Your task to perform on an android device: Open calendar and show me the second week of next month Image 0: 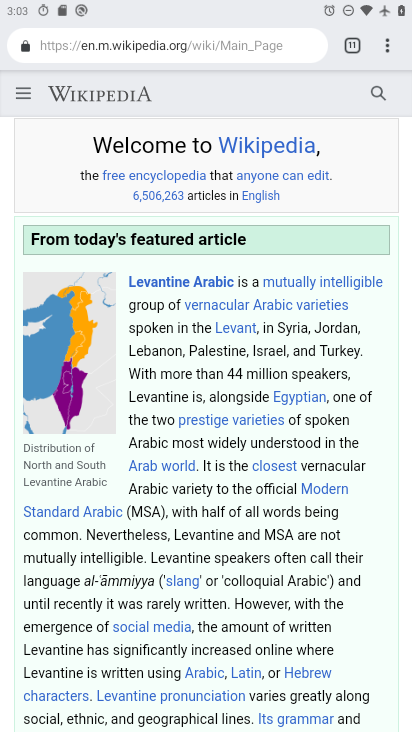
Step 0: drag from (219, 685) to (254, 622)
Your task to perform on an android device: Open calendar and show me the second week of next month Image 1: 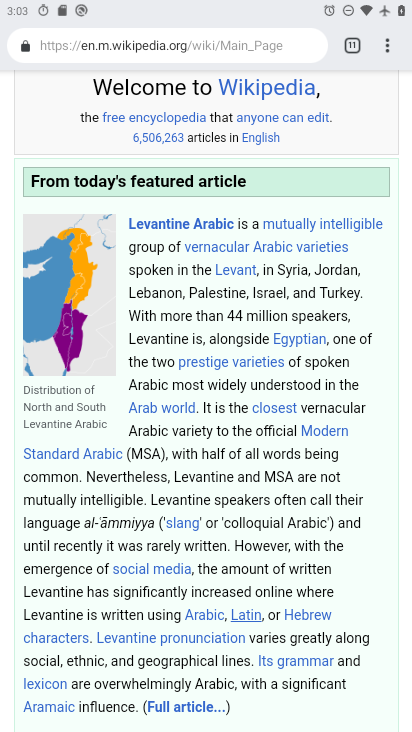
Step 1: press home button
Your task to perform on an android device: Open calendar and show me the second week of next month Image 2: 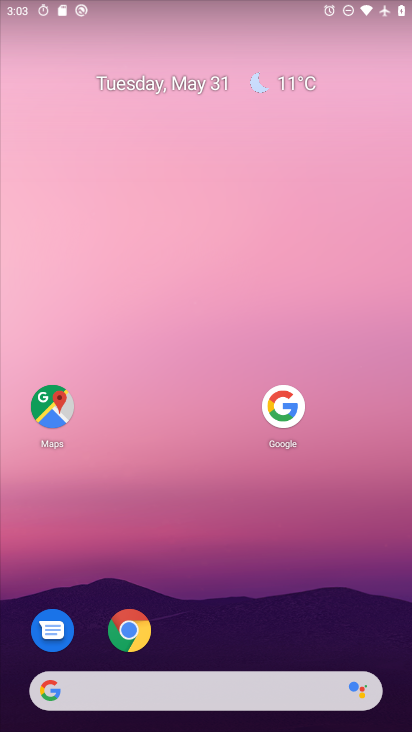
Step 2: drag from (207, 681) to (318, 266)
Your task to perform on an android device: Open calendar and show me the second week of next month Image 3: 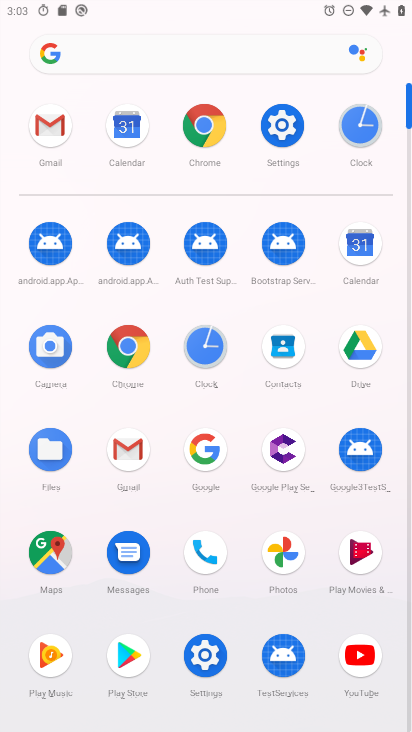
Step 3: click (136, 134)
Your task to perform on an android device: Open calendar and show me the second week of next month Image 4: 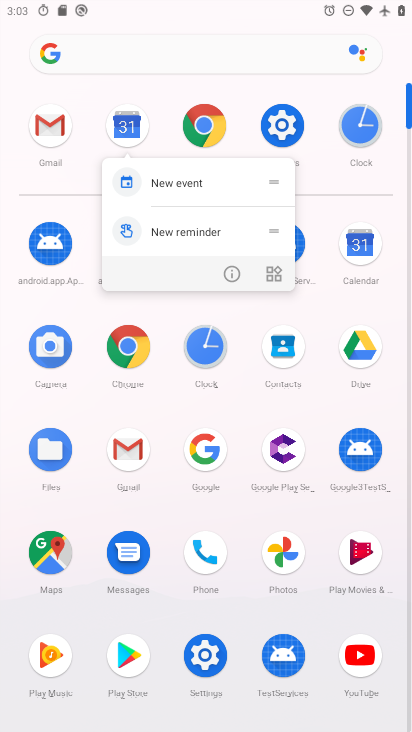
Step 4: click (126, 131)
Your task to perform on an android device: Open calendar and show me the second week of next month Image 5: 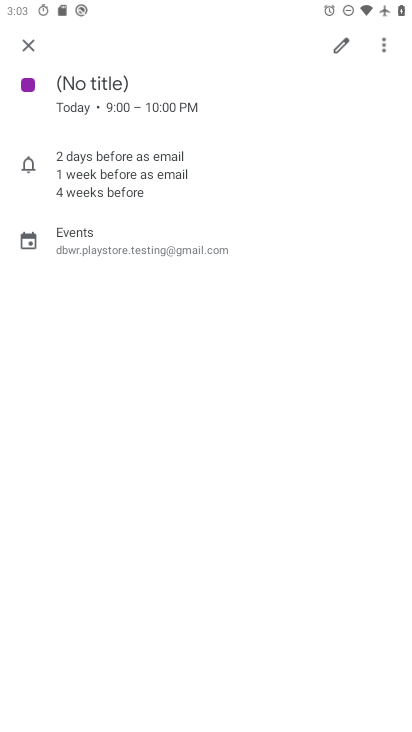
Step 5: click (27, 45)
Your task to perform on an android device: Open calendar and show me the second week of next month Image 6: 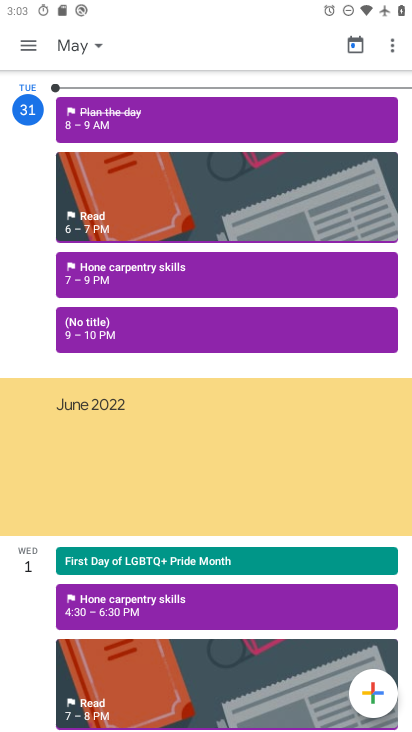
Step 6: click (72, 42)
Your task to perform on an android device: Open calendar and show me the second week of next month Image 7: 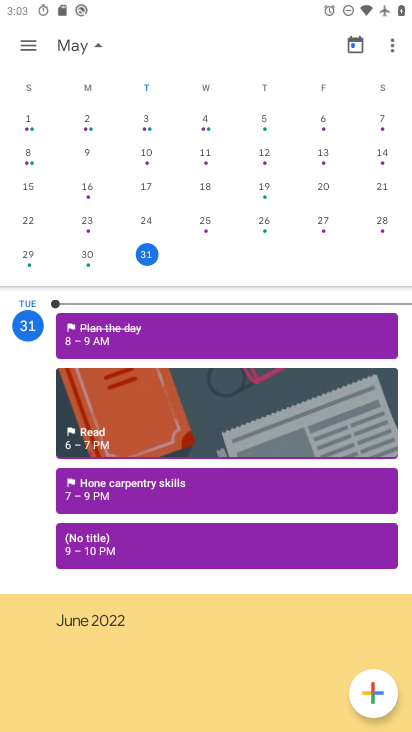
Step 7: drag from (338, 120) to (56, 164)
Your task to perform on an android device: Open calendar and show me the second week of next month Image 8: 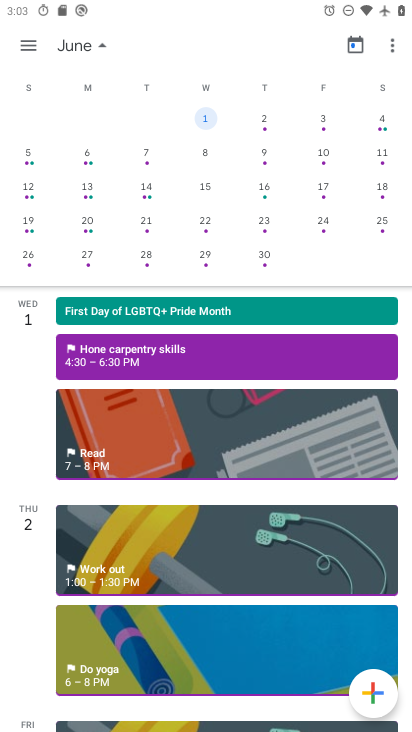
Step 8: click (26, 153)
Your task to perform on an android device: Open calendar and show me the second week of next month Image 9: 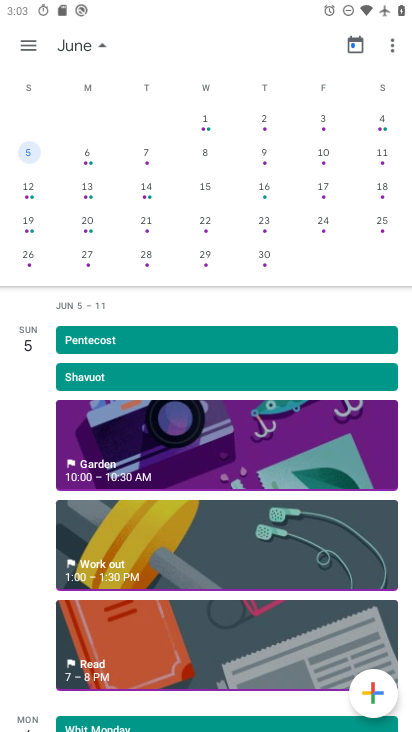
Step 9: click (23, 30)
Your task to perform on an android device: Open calendar and show me the second week of next month Image 10: 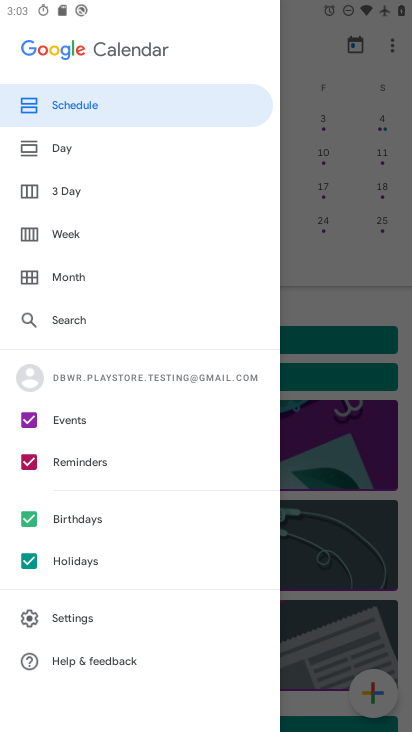
Step 10: click (28, 43)
Your task to perform on an android device: Open calendar and show me the second week of next month Image 11: 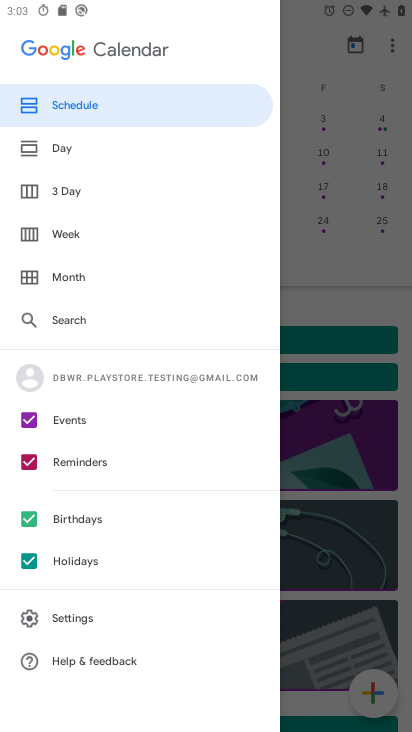
Step 11: click (70, 232)
Your task to perform on an android device: Open calendar and show me the second week of next month Image 12: 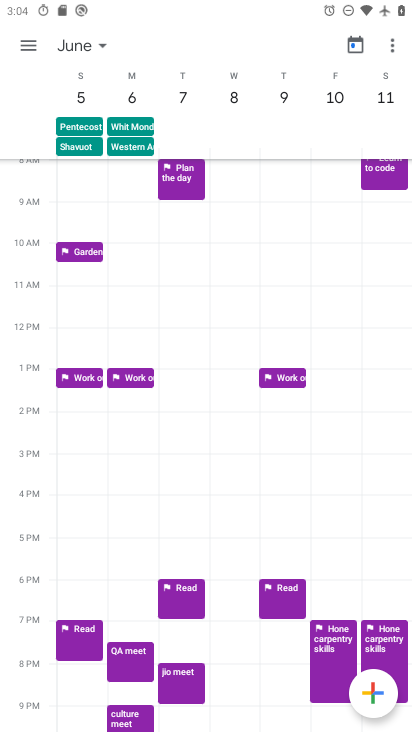
Step 12: task complete